Your task to perform on an android device: change text size in settings app Image 0: 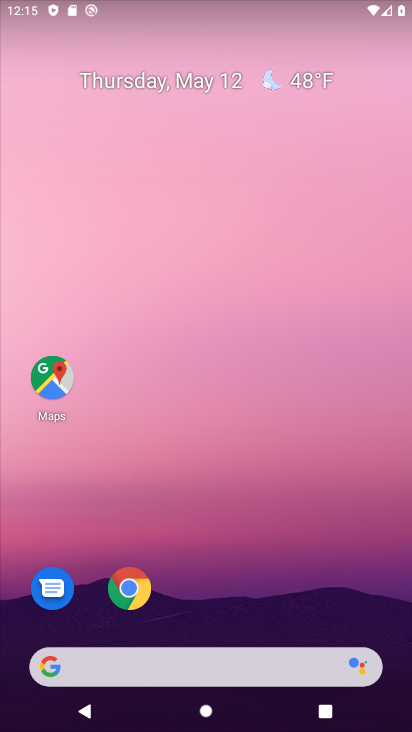
Step 0: drag from (280, 627) to (3, 148)
Your task to perform on an android device: change text size in settings app Image 1: 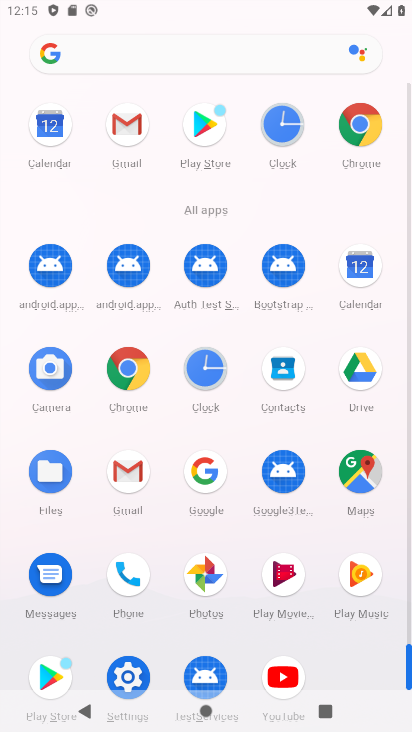
Step 1: drag from (142, 654) to (140, 6)
Your task to perform on an android device: change text size in settings app Image 2: 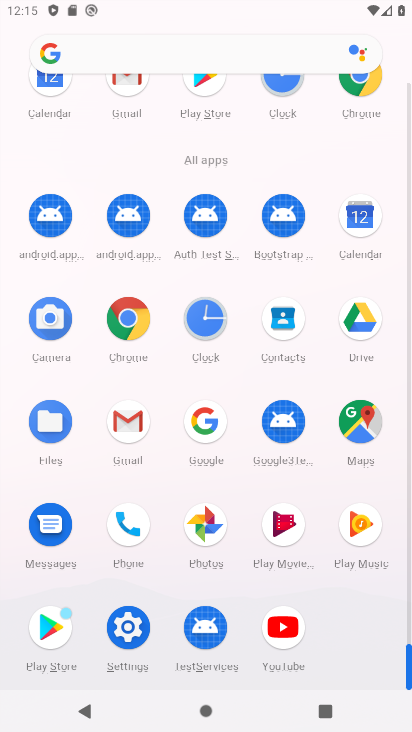
Step 2: click (137, 629)
Your task to perform on an android device: change text size in settings app Image 3: 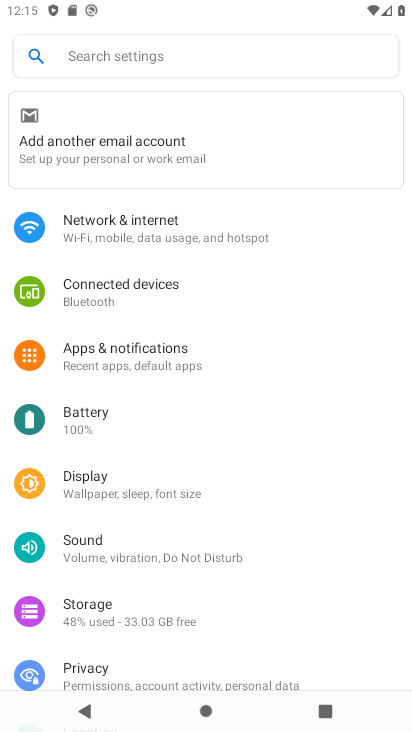
Step 3: click (89, 488)
Your task to perform on an android device: change text size in settings app Image 4: 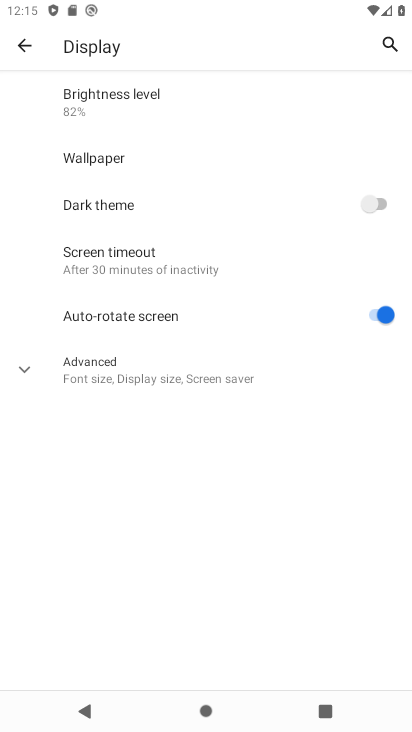
Step 4: click (24, 48)
Your task to perform on an android device: change text size in settings app Image 5: 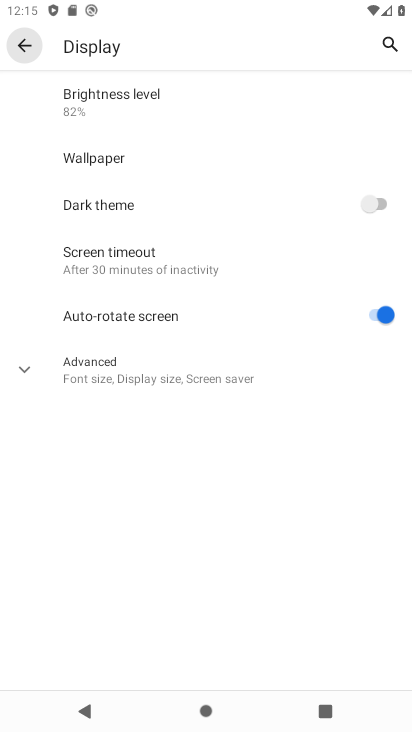
Step 5: click (26, 43)
Your task to perform on an android device: change text size in settings app Image 6: 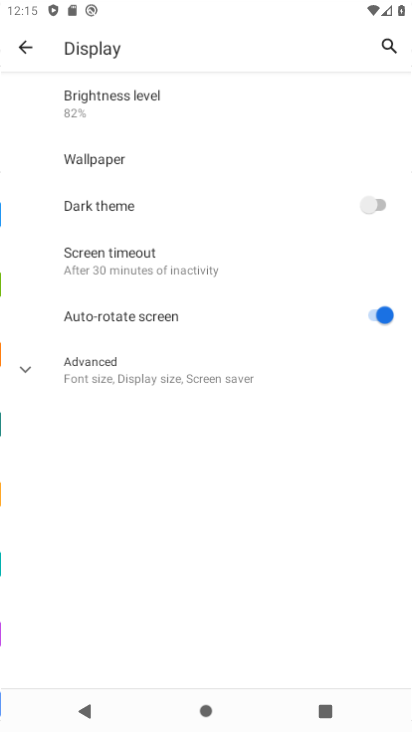
Step 6: click (25, 42)
Your task to perform on an android device: change text size in settings app Image 7: 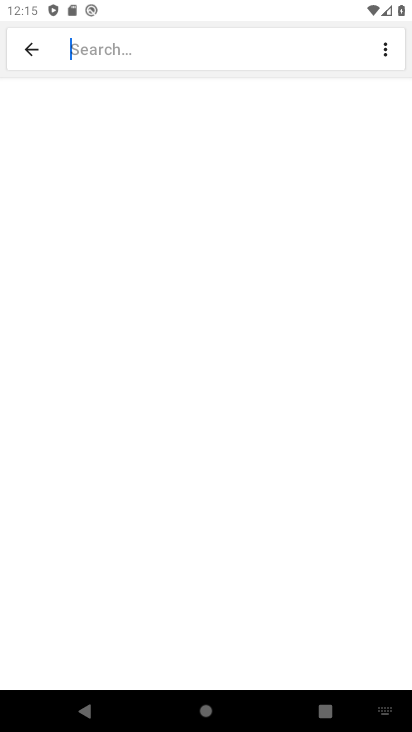
Step 7: press back button
Your task to perform on an android device: change text size in settings app Image 8: 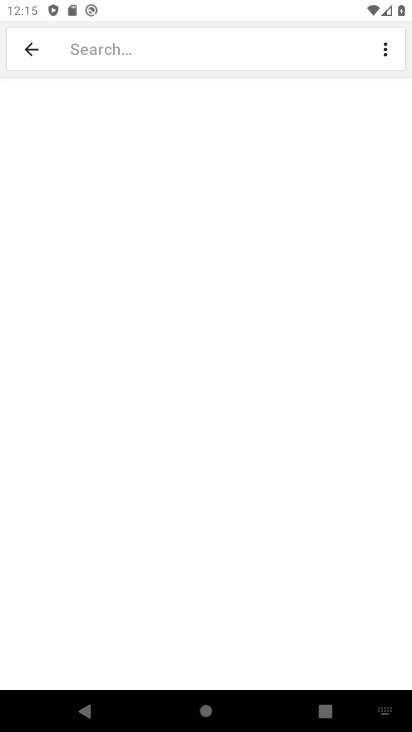
Step 8: press back button
Your task to perform on an android device: change text size in settings app Image 9: 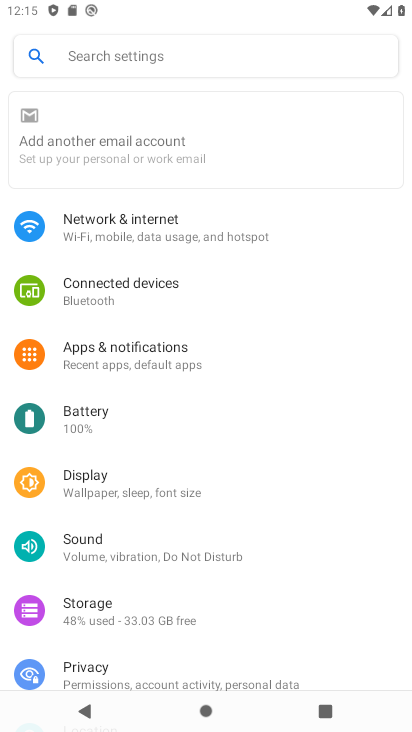
Step 9: press back button
Your task to perform on an android device: change text size in settings app Image 10: 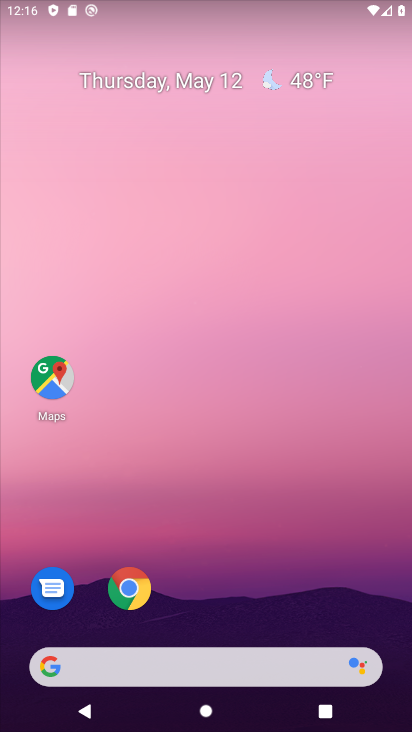
Step 10: drag from (248, 629) to (52, 138)
Your task to perform on an android device: change text size in settings app Image 11: 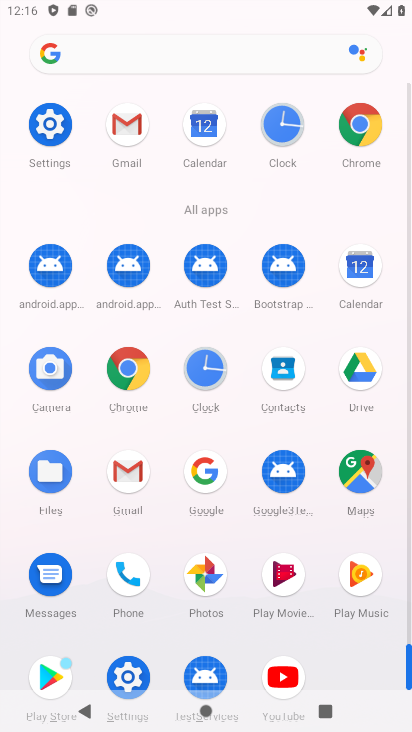
Step 11: click (36, 125)
Your task to perform on an android device: change text size in settings app Image 12: 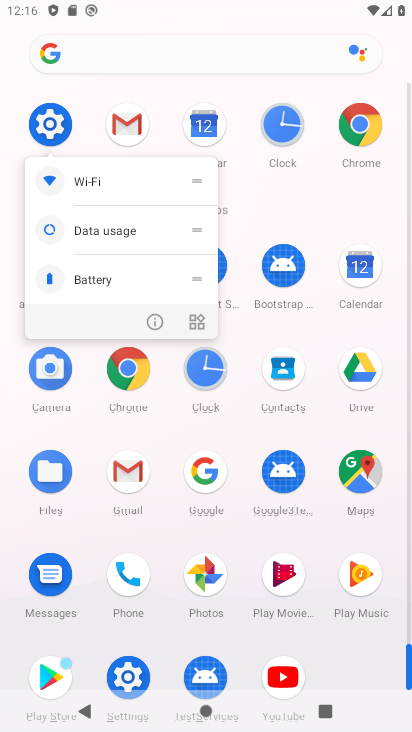
Step 12: click (43, 121)
Your task to perform on an android device: change text size in settings app Image 13: 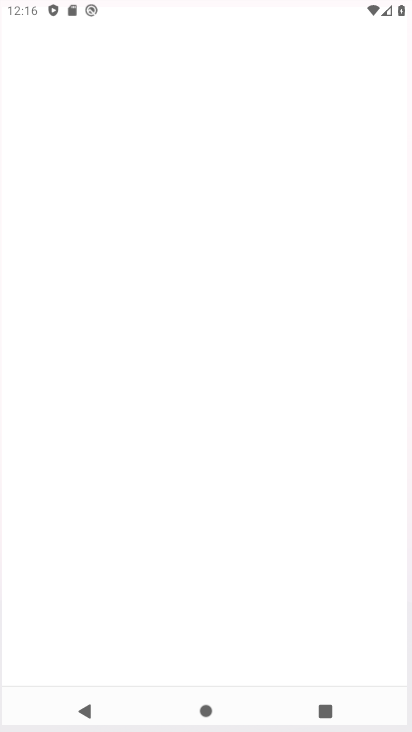
Step 13: click (43, 121)
Your task to perform on an android device: change text size in settings app Image 14: 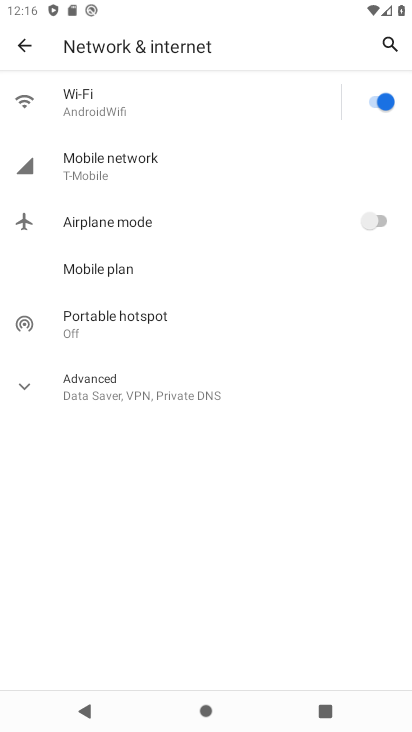
Step 14: click (19, 34)
Your task to perform on an android device: change text size in settings app Image 15: 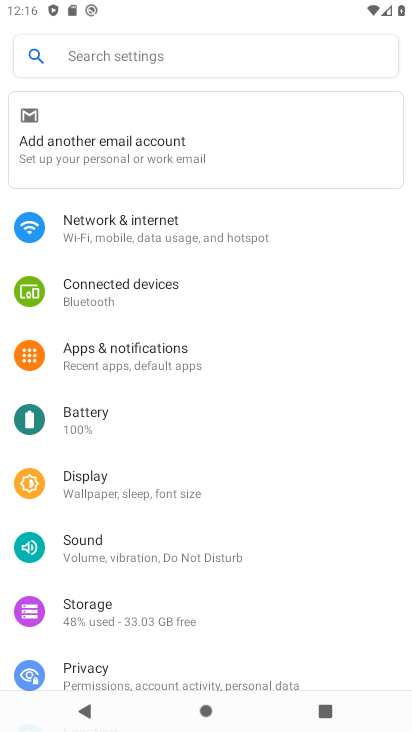
Step 15: click (174, 482)
Your task to perform on an android device: change text size in settings app Image 16: 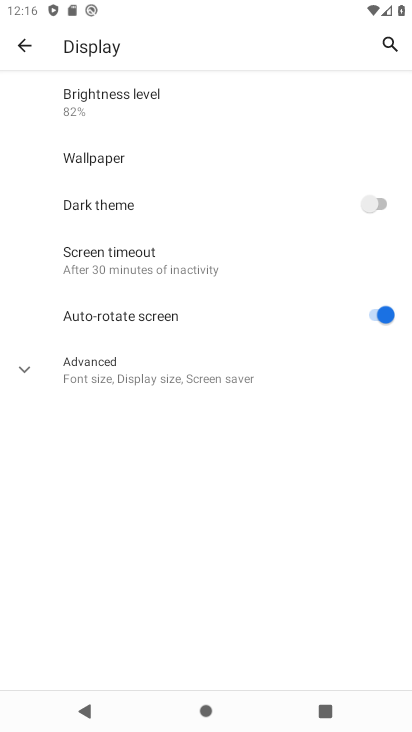
Step 16: click (135, 367)
Your task to perform on an android device: change text size in settings app Image 17: 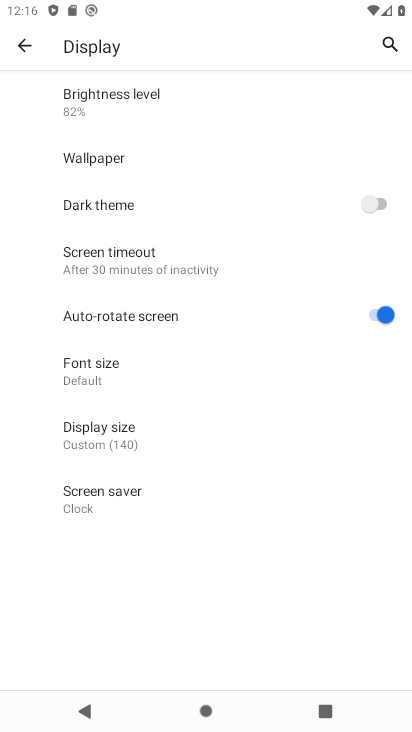
Step 17: click (92, 374)
Your task to perform on an android device: change text size in settings app Image 18: 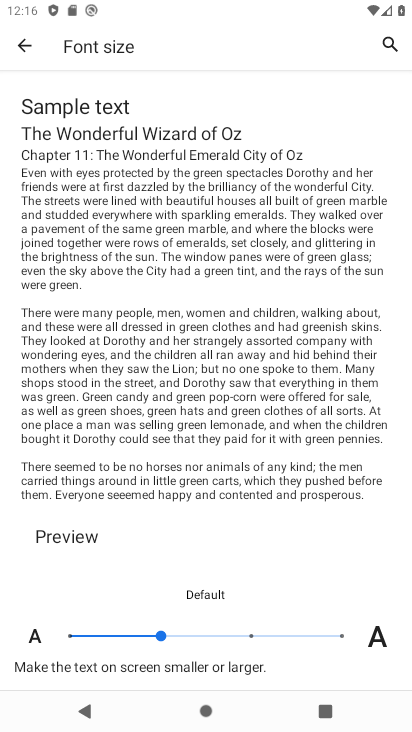
Step 18: click (250, 628)
Your task to perform on an android device: change text size in settings app Image 19: 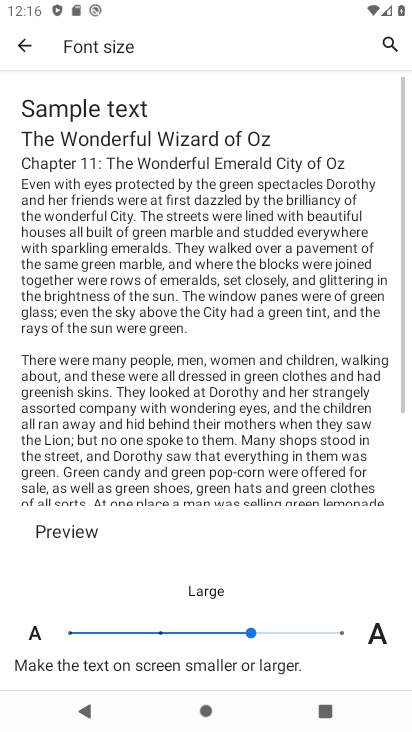
Step 19: task complete